Your task to perform on an android device: see sites visited before in the chrome app Image 0: 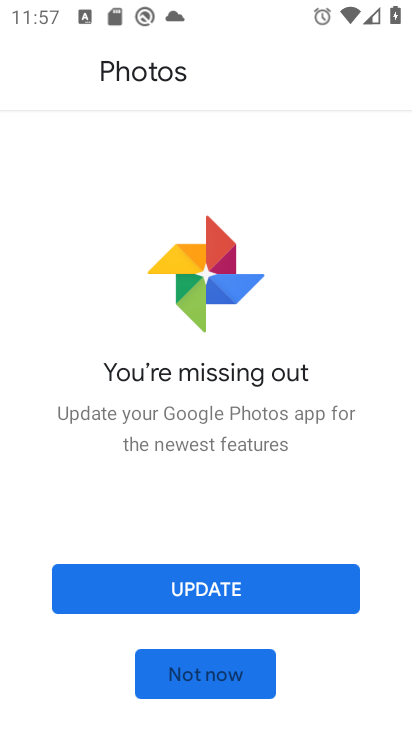
Step 0: press home button
Your task to perform on an android device: see sites visited before in the chrome app Image 1: 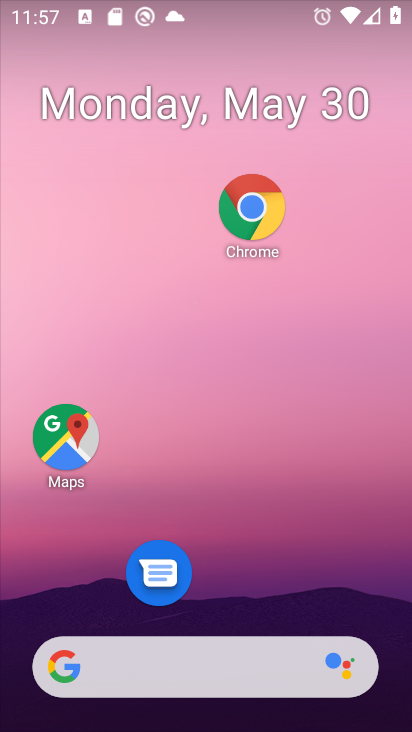
Step 1: drag from (316, 690) to (316, 69)
Your task to perform on an android device: see sites visited before in the chrome app Image 2: 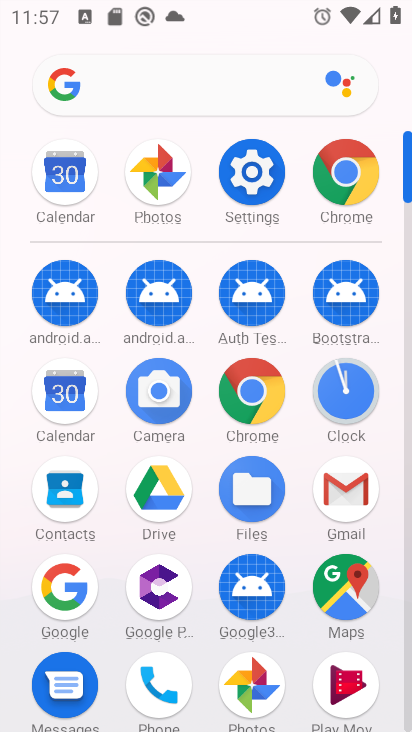
Step 2: click (331, 179)
Your task to perform on an android device: see sites visited before in the chrome app Image 3: 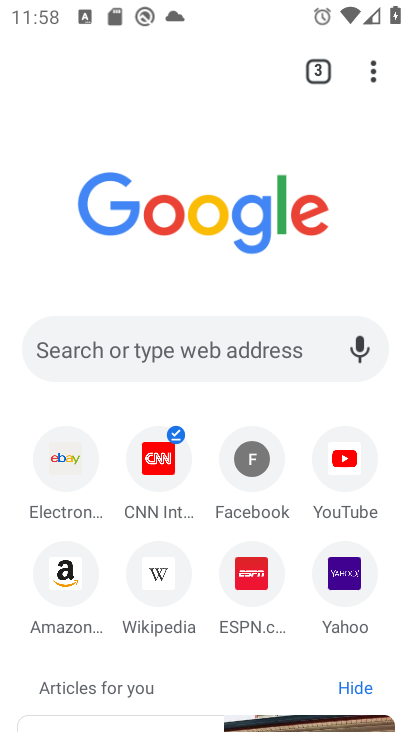
Step 3: click (359, 81)
Your task to perform on an android device: see sites visited before in the chrome app Image 4: 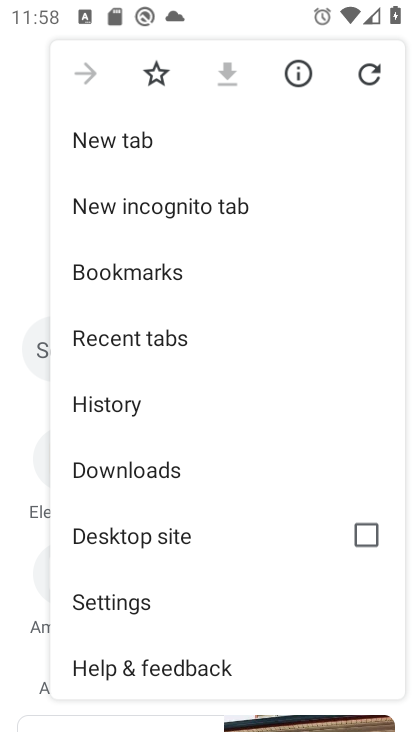
Step 4: click (149, 404)
Your task to perform on an android device: see sites visited before in the chrome app Image 5: 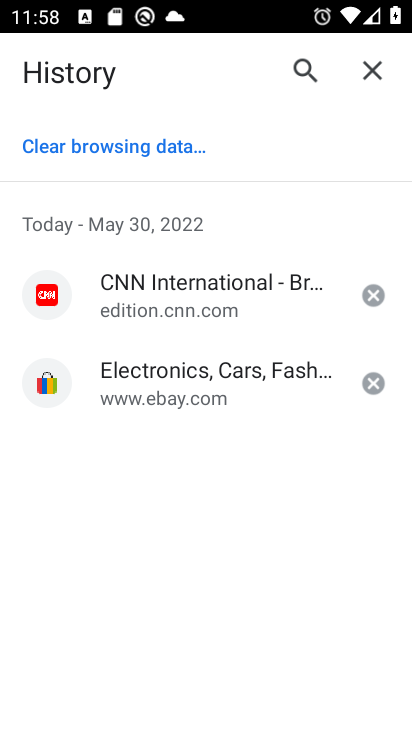
Step 5: task complete